Your task to perform on an android device: toggle sleep mode Image 0: 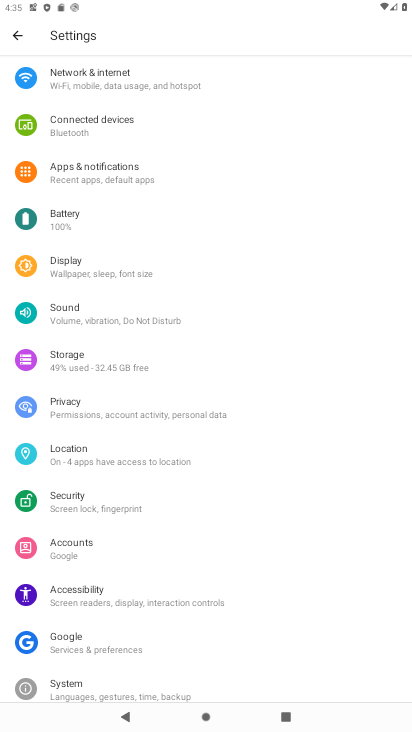
Step 0: press home button
Your task to perform on an android device: toggle sleep mode Image 1: 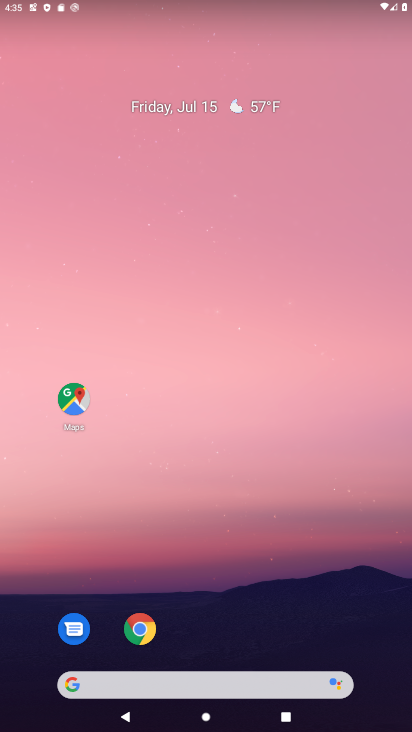
Step 1: drag from (264, 656) to (306, 3)
Your task to perform on an android device: toggle sleep mode Image 2: 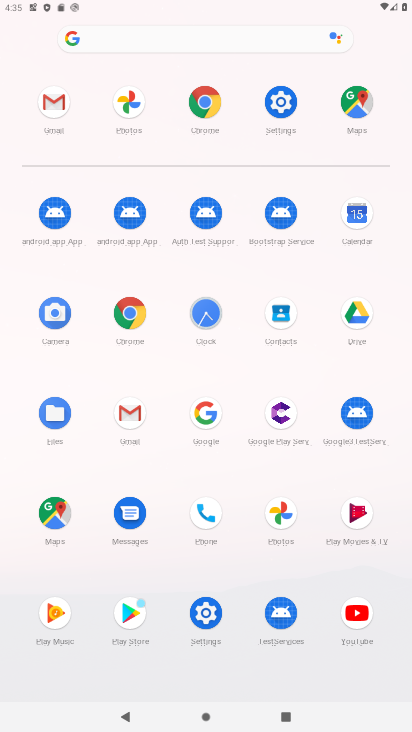
Step 2: click (289, 107)
Your task to perform on an android device: toggle sleep mode Image 3: 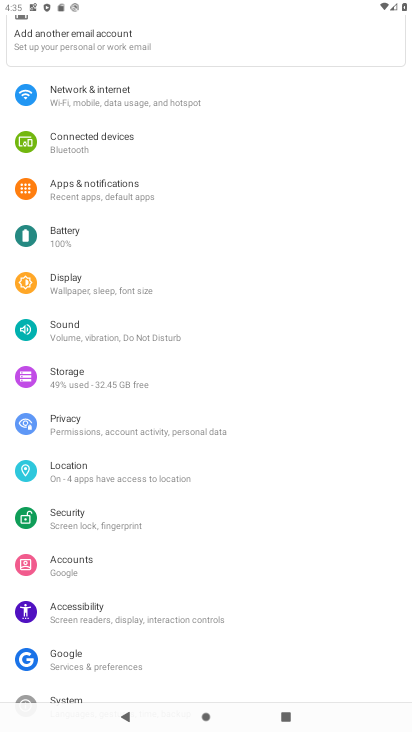
Step 3: click (58, 290)
Your task to perform on an android device: toggle sleep mode Image 4: 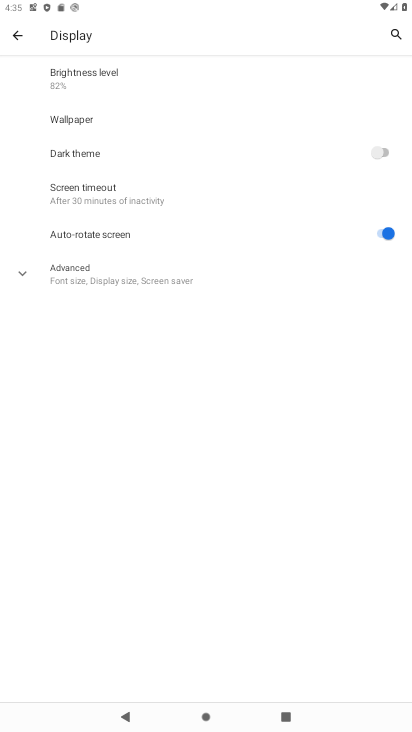
Step 4: task complete